Your task to perform on an android device: find which apps use the phone's location Image 0: 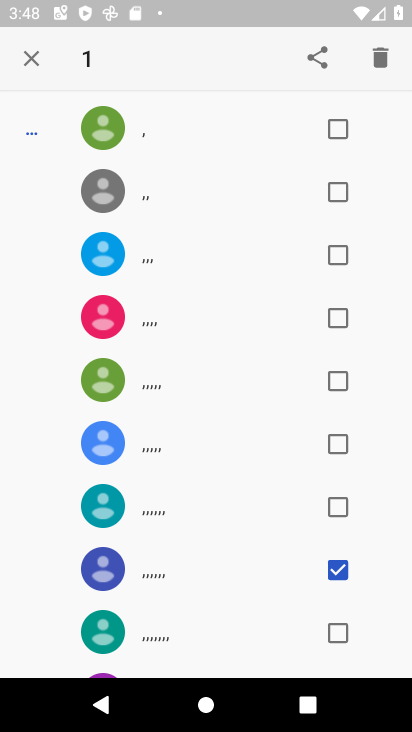
Step 0: press home button
Your task to perform on an android device: find which apps use the phone's location Image 1: 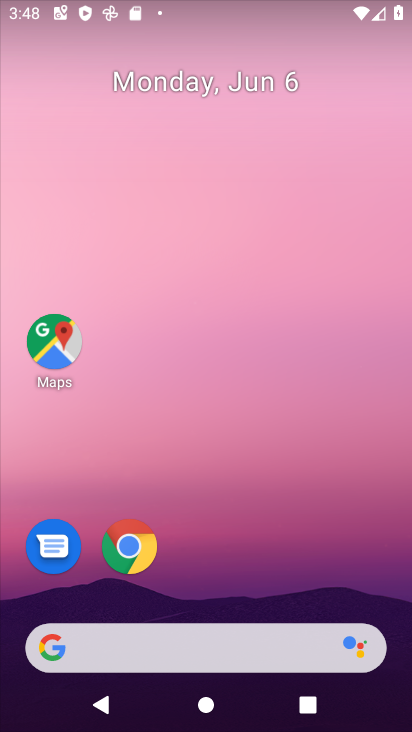
Step 1: drag from (333, 580) to (325, 164)
Your task to perform on an android device: find which apps use the phone's location Image 2: 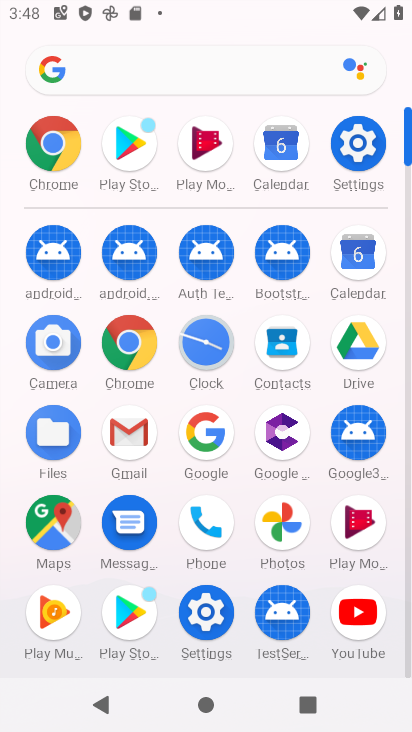
Step 2: click (371, 129)
Your task to perform on an android device: find which apps use the phone's location Image 3: 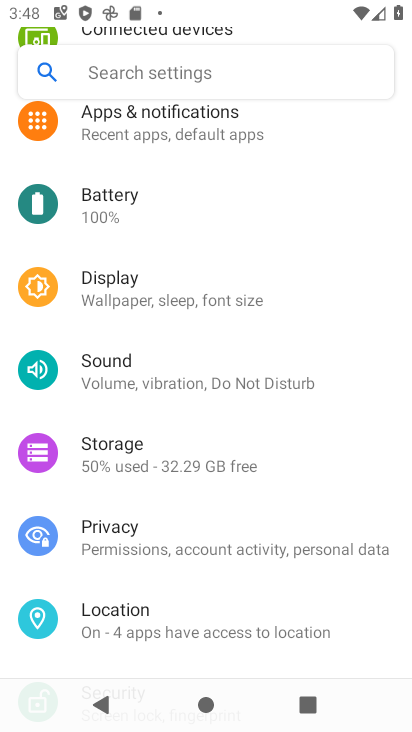
Step 3: click (193, 621)
Your task to perform on an android device: find which apps use the phone's location Image 4: 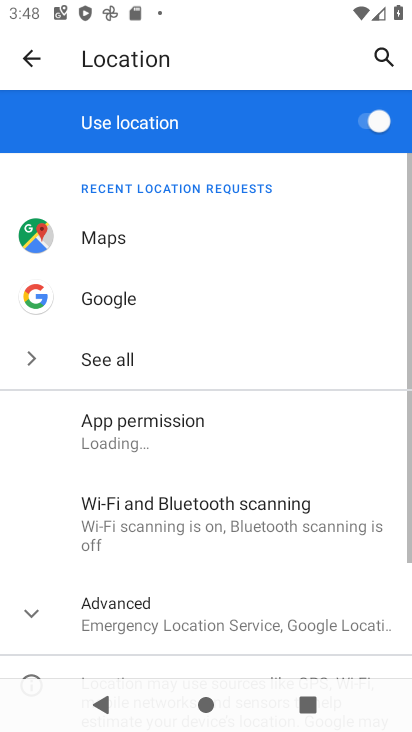
Step 4: task complete